Your task to perform on an android device: turn off wifi Image 0: 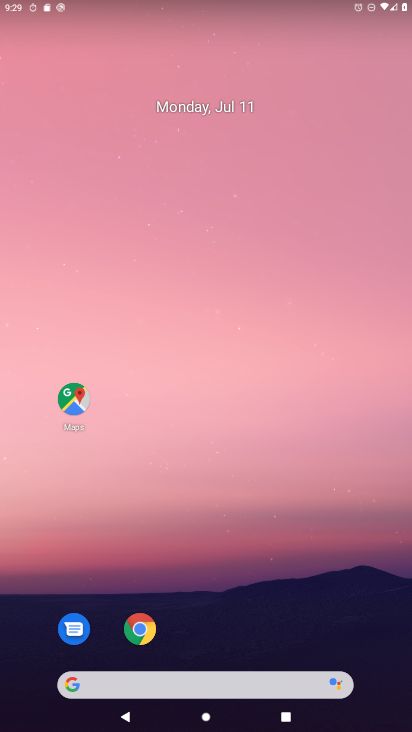
Step 0: drag from (257, 623) to (254, 112)
Your task to perform on an android device: turn off wifi Image 1: 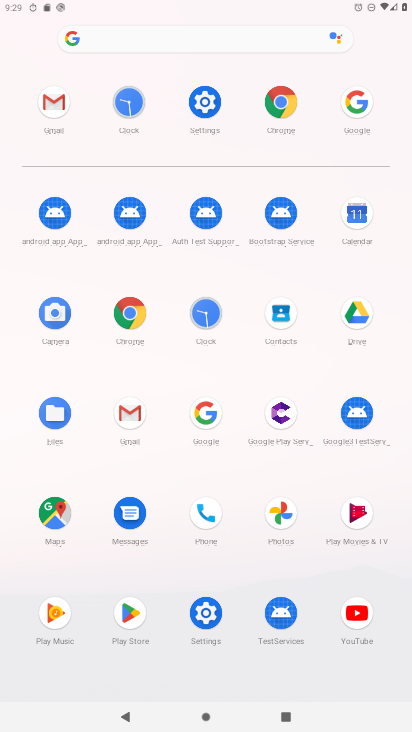
Step 1: click (204, 99)
Your task to perform on an android device: turn off wifi Image 2: 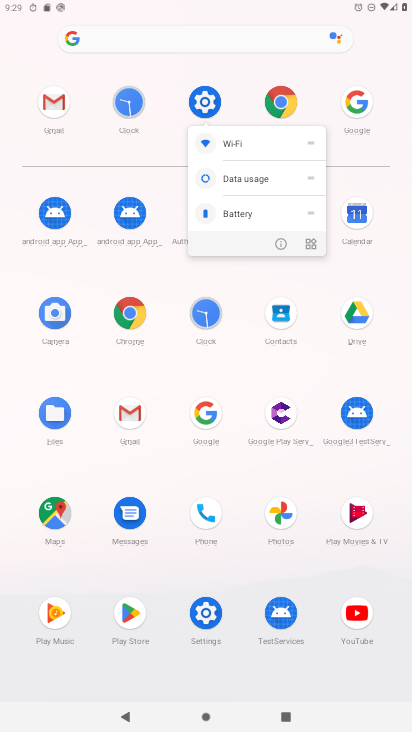
Step 2: click (204, 103)
Your task to perform on an android device: turn off wifi Image 3: 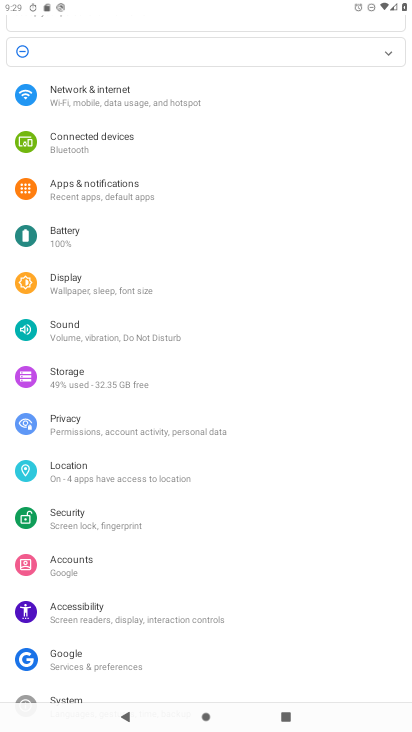
Step 3: click (131, 98)
Your task to perform on an android device: turn off wifi Image 4: 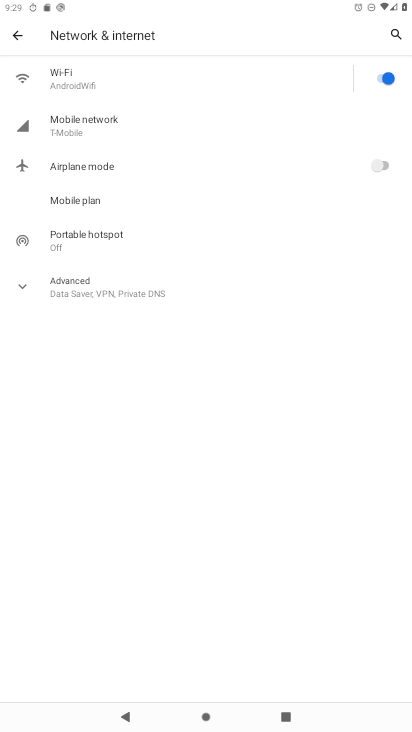
Step 4: click (379, 79)
Your task to perform on an android device: turn off wifi Image 5: 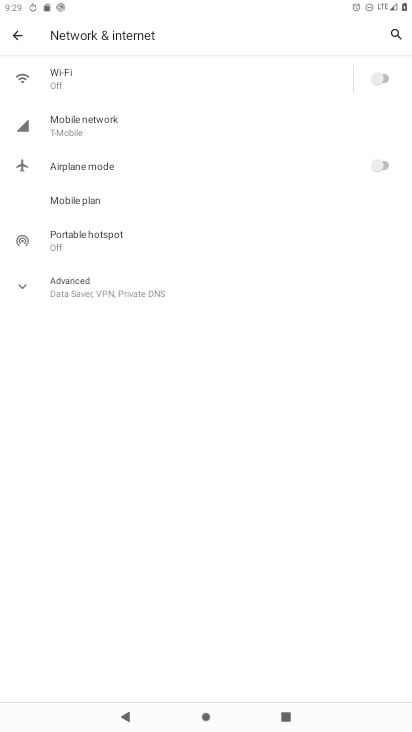
Step 5: task complete